Your task to perform on an android device: Search for flights from Helsinki to Seoul Image 0: 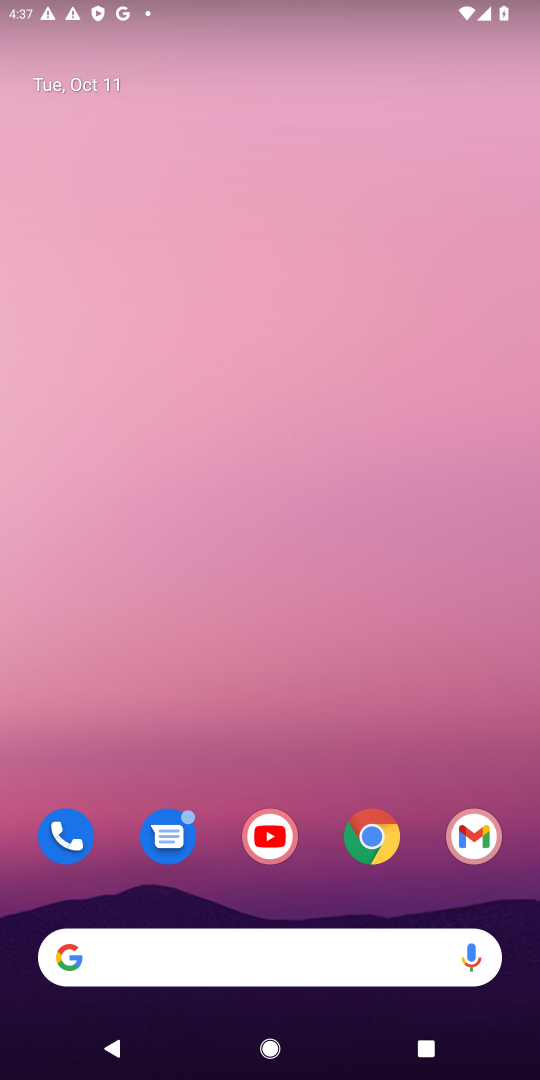
Step 0: click (374, 849)
Your task to perform on an android device: Search for flights from Helsinki to Seoul Image 1: 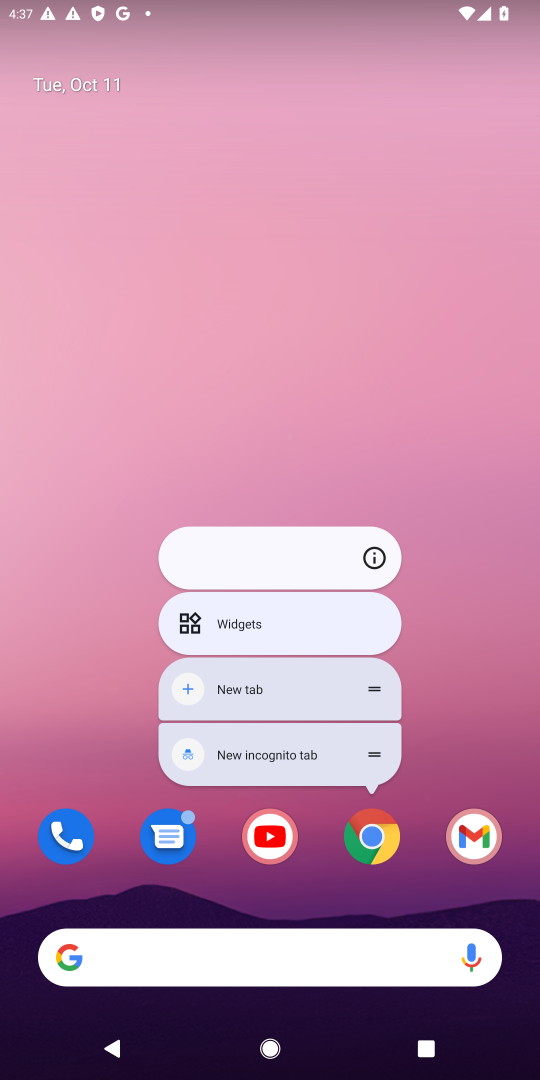
Step 1: click (372, 836)
Your task to perform on an android device: Search for flights from Helsinki to Seoul Image 2: 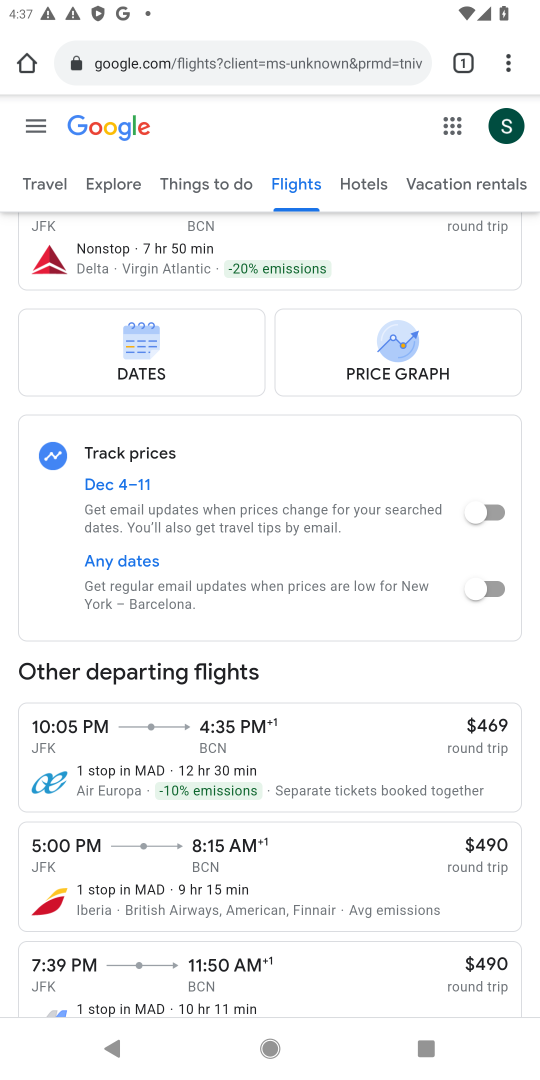
Step 2: click (343, 69)
Your task to perform on an android device: Search for flights from Helsinki to Seoul Image 3: 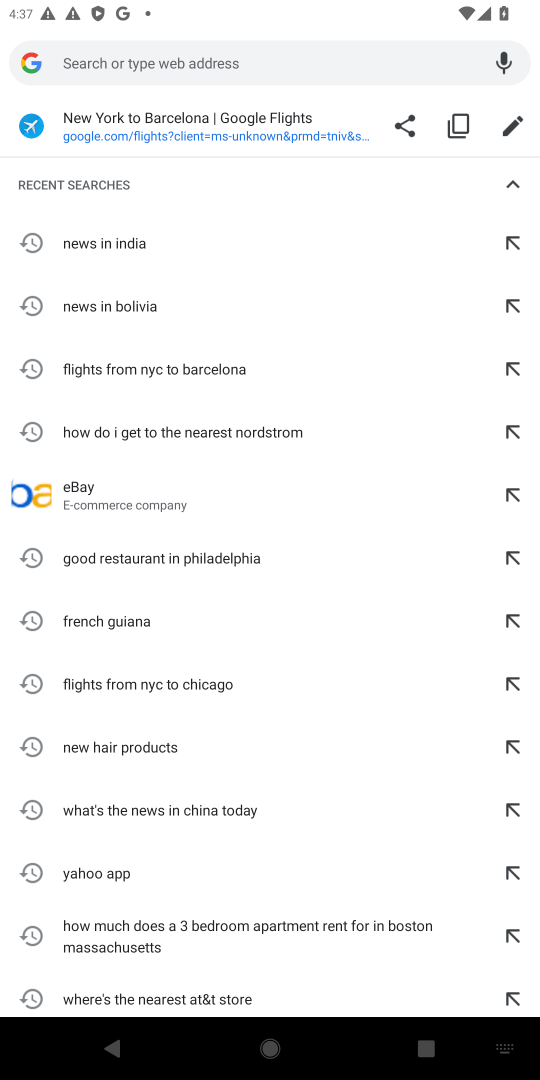
Step 3: type "flights from Helsinki to Seoul"
Your task to perform on an android device: Search for flights from Helsinki to Seoul Image 4: 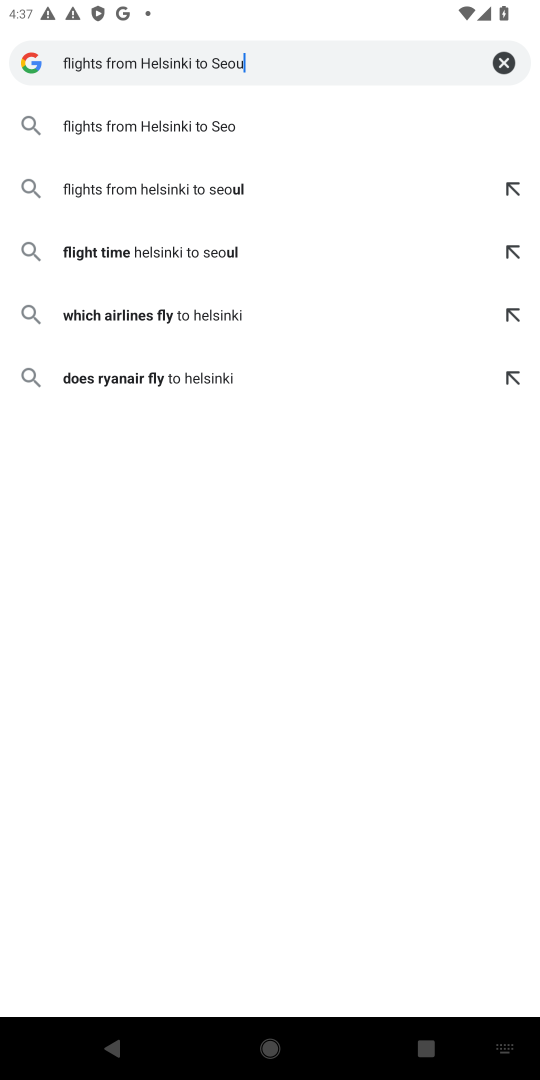
Step 4: press enter
Your task to perform on an android device: Search for flights from Helsinki to Seoul Image 5: 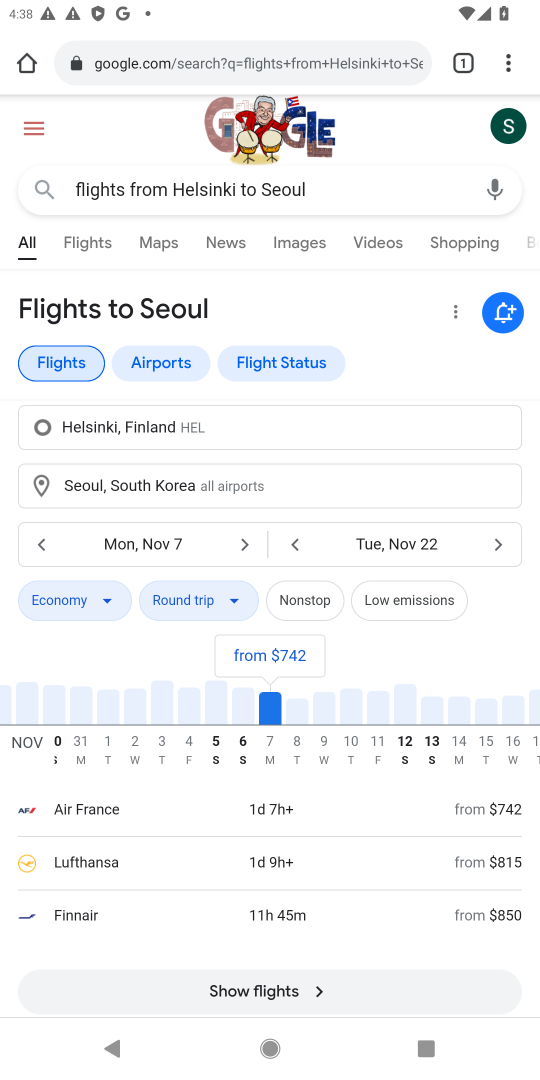
Step 5: drag from (240, 752) to (430, 119)
Your task to perform on an android device: Search for flights from Helsinki to Seoul Image 6: 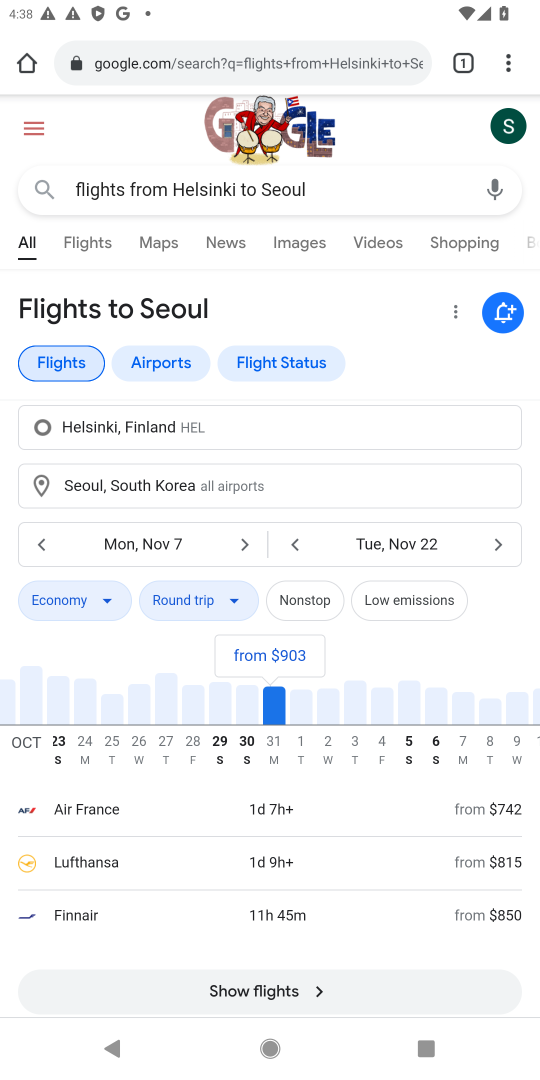
Step 6: drag from (219, 877) to (439, 271)
Your task to perform on an android device: Search for flights from Helsinki to Seoul Image 7: 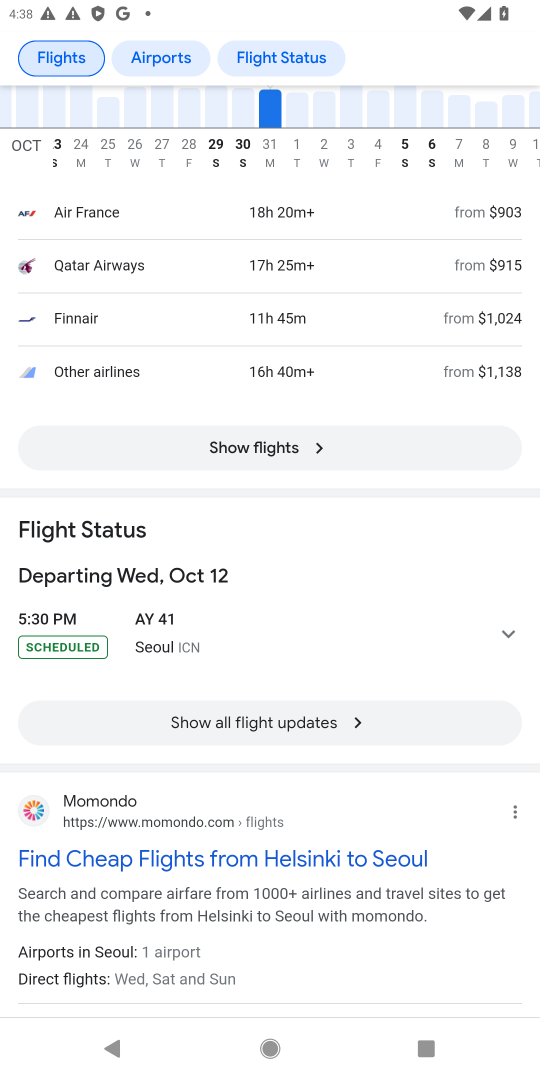
Step 7: click (262, 435)
Your task to perform on an android device: Search for flights from Helsinki to Seoul Image 8: 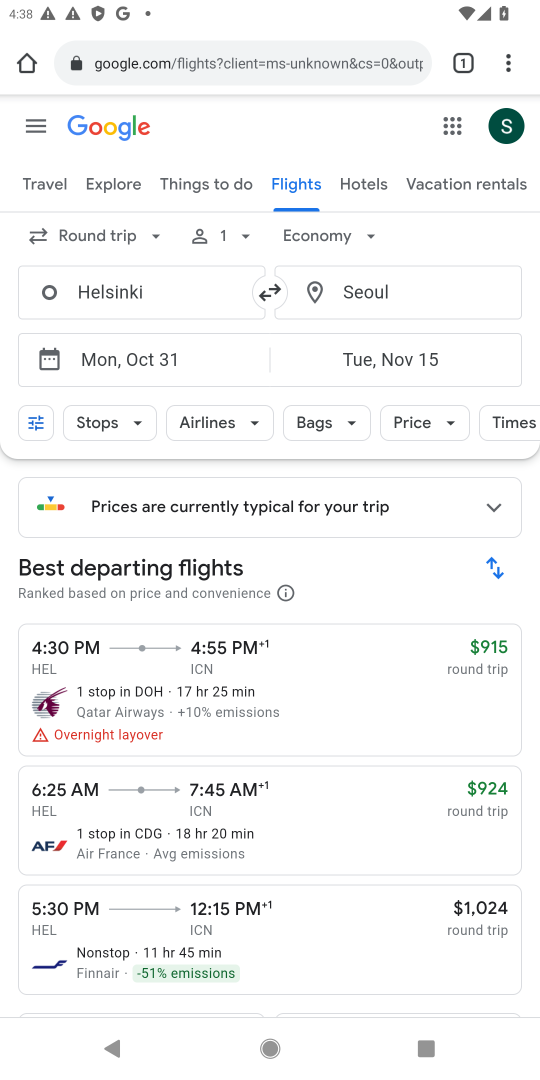
Step 8: task complete